Your task to perform on an android device: Open Chrome and go to settings Image 0: 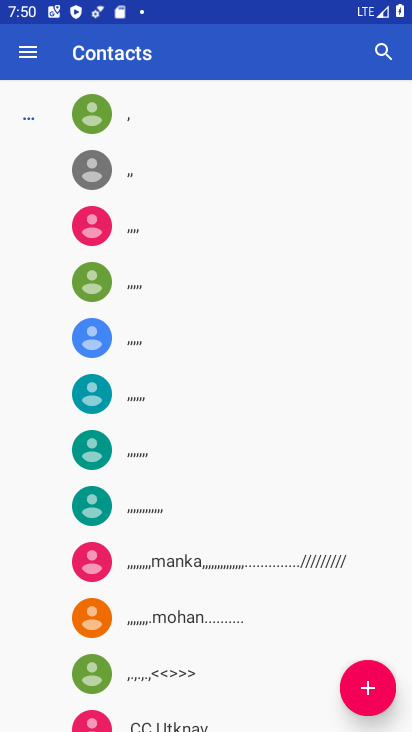
Step 0: press home button
Your task to perform on an android device: Open Chrome and go to settings Image 1: 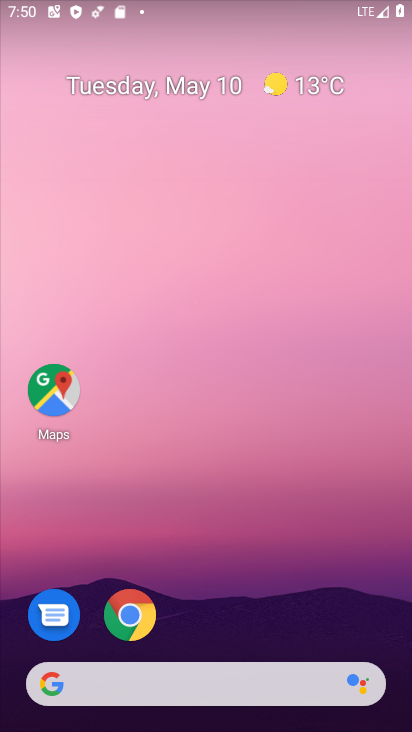
Step 1: drag from (248, 573) to (293, 105)
Your task to perform on an android device: Open Chrome and go to settings Image 2: 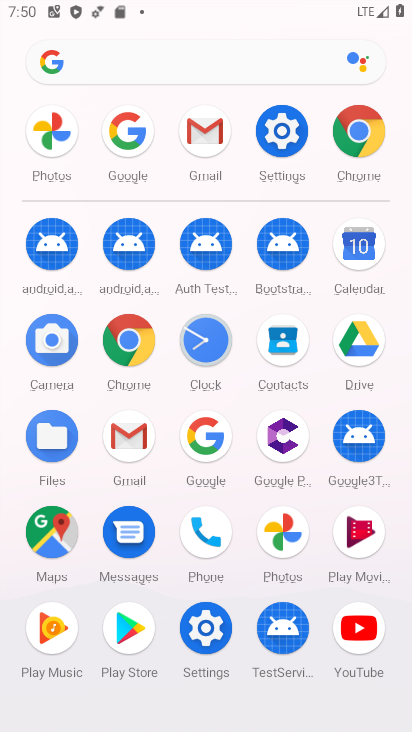
Step 2: click (367, 143)
Your task to perform on an android device: Open Chrome and go to settings Image 3: 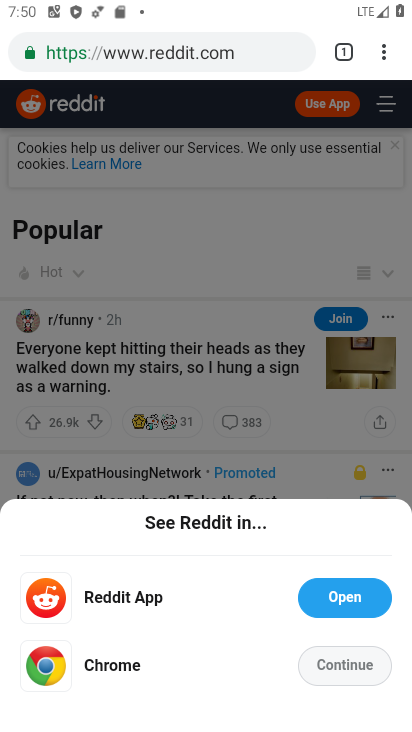
Step 3: task complete